Your task to perform on an android device: check storage Image 0: 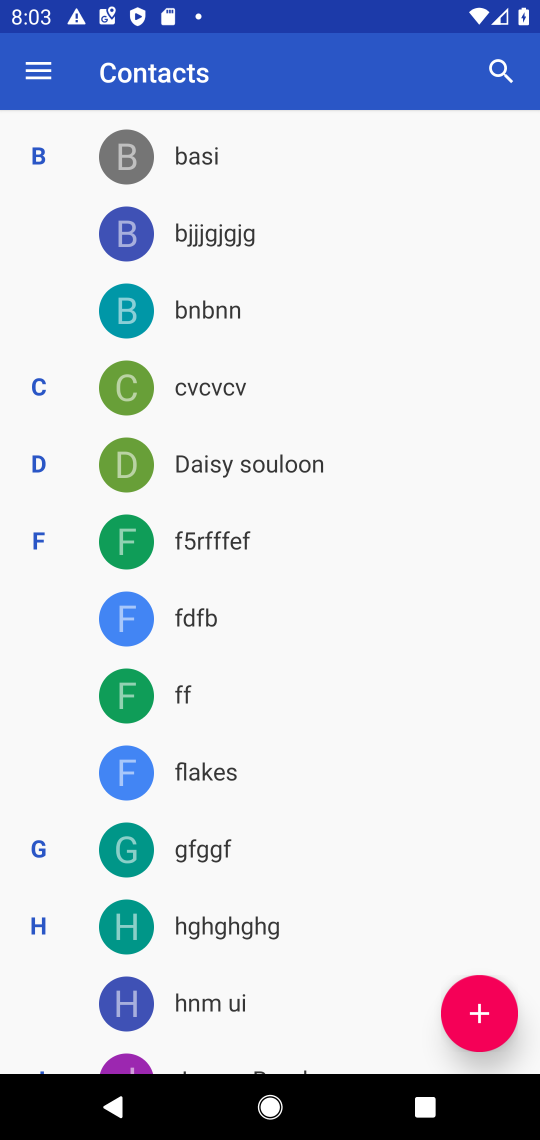
Step 0: press home button
Your task to perform on an android device: check storage Image 1: 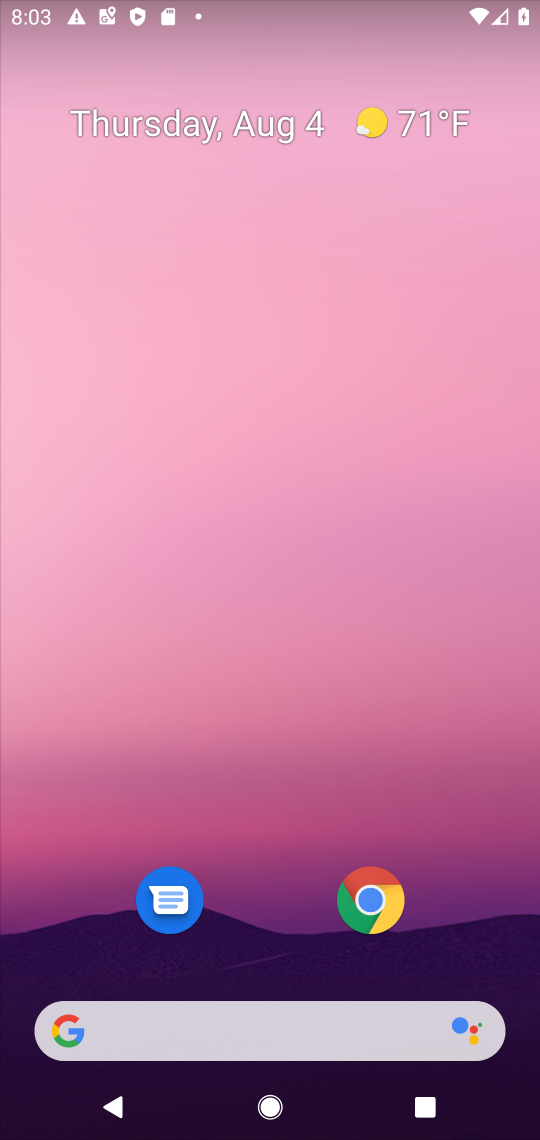
Step 1: drag from (236, 973) to (280, 50)
Your task to perform on an android device: check storage Image 2: 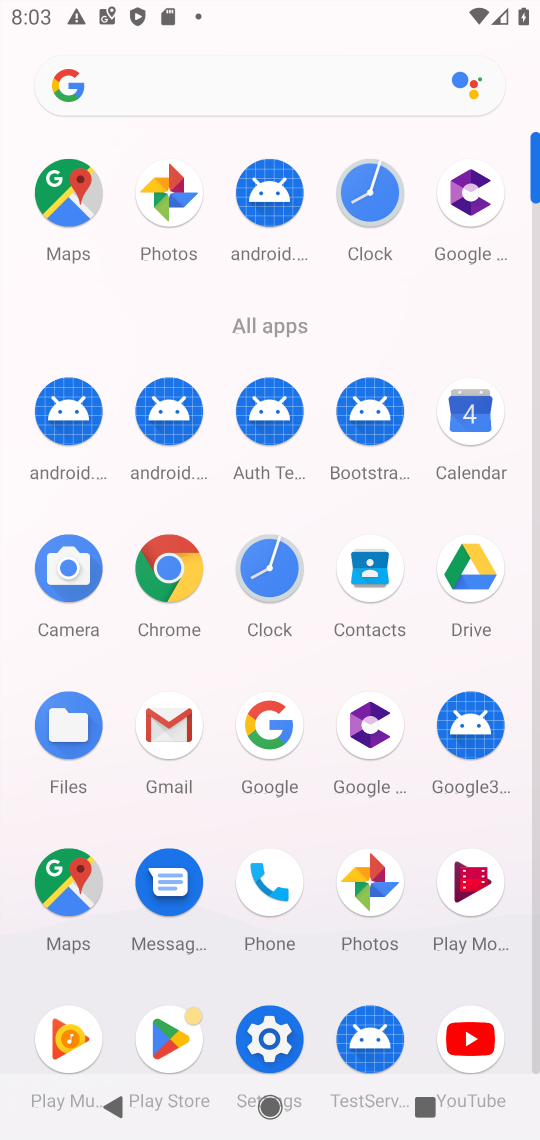
Step 2: click (270, 1035)
Your task to perform on an android device: check storage Image 3: 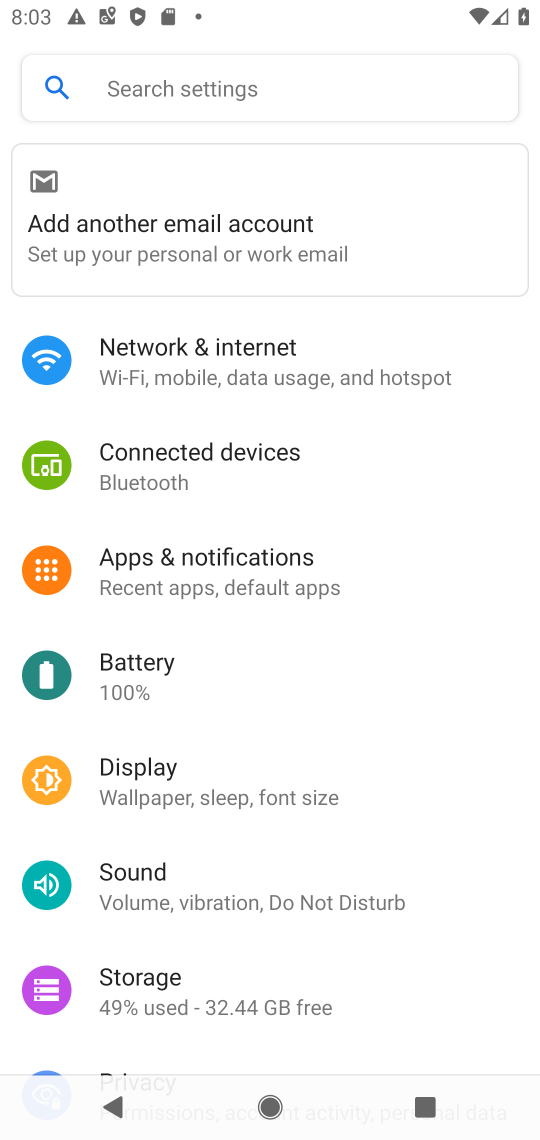
Step 3: click (144, 995)
Your task to perform on an android device: check storage Image 4: 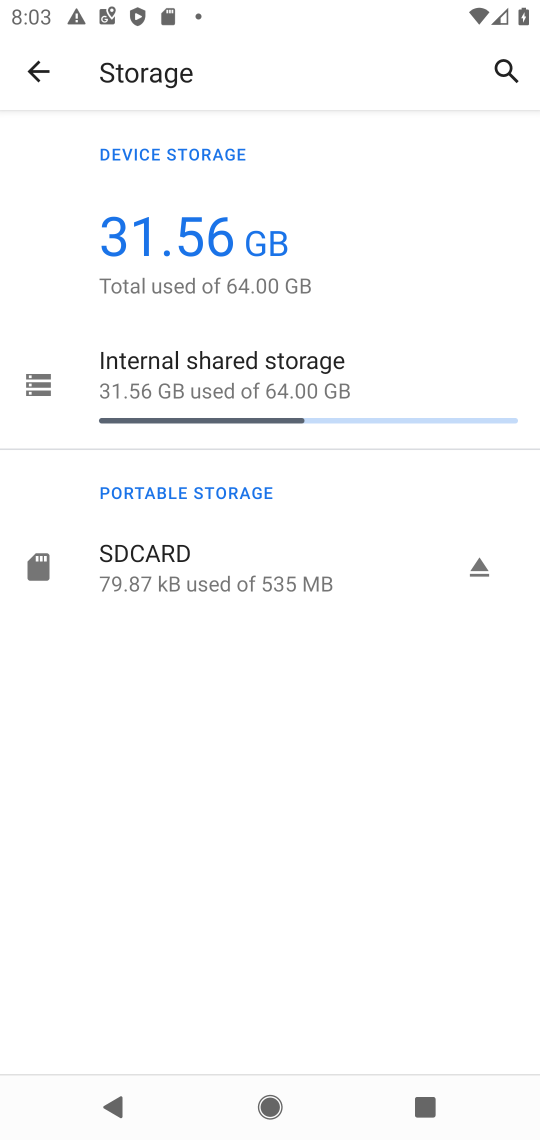
Step 4: task complete